Your task to perform on an android device: find snoozed emails in the gmail app Image 0: 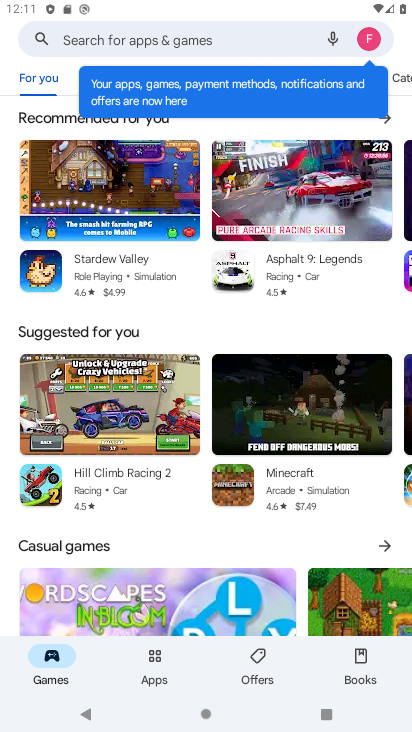
Step 0: press home button
Your task to perform on an android device: find snoozed emails in the gmail app Image 1: 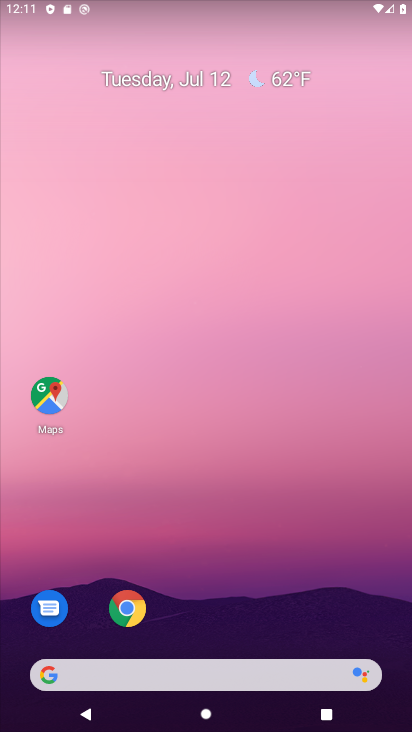
Step 1: drag from (279, 615) to (267, 31)
Your task to perform on an android device: find snoozed emails in the gmail app Image 2: 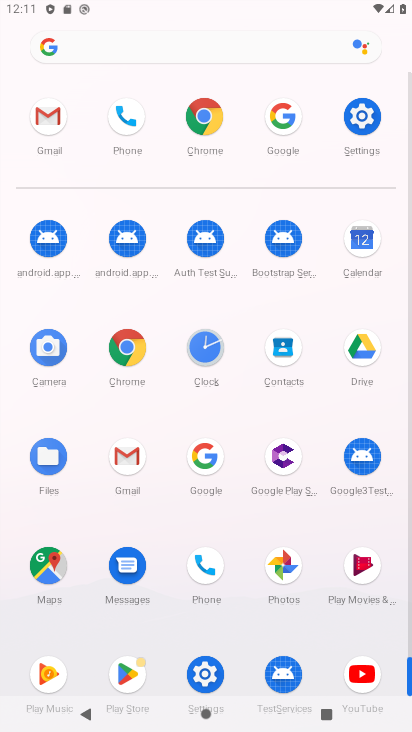
Step 2: click (32, 116)
Your task to perform on an android device: find snoozed emails in the gmail app Image 3: 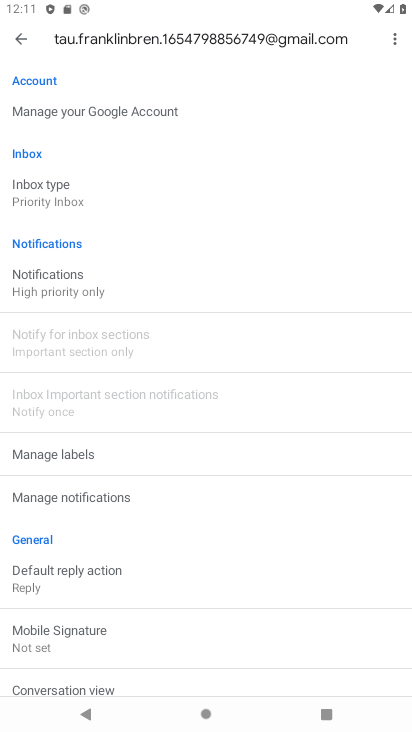
Step 3: drag from (166, 264) to (261, 613)
Your task to perform on an android device: find snoozed emails in the gmail app Image 4: 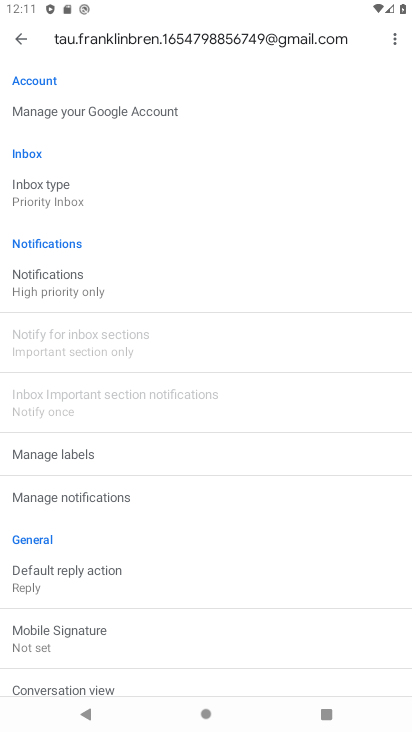
Step 4: click (24, 38)
Your task to perform on an android device: find snoozed emails in the gmail app Image 5: 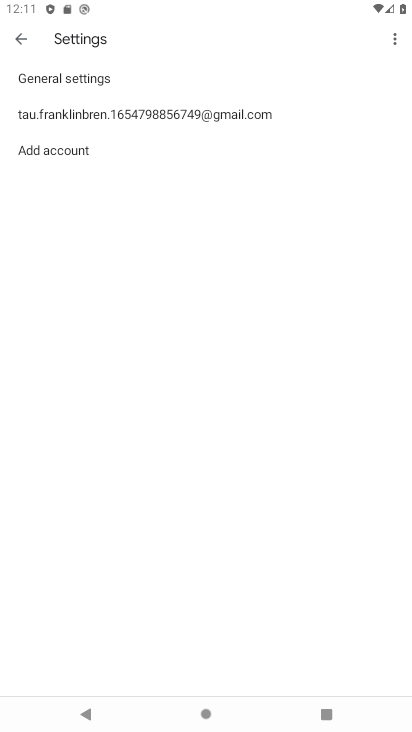
Step 5: click (24, 37)
Your task to perform on an android device: find snoozed emails in the gmail app Image 6: 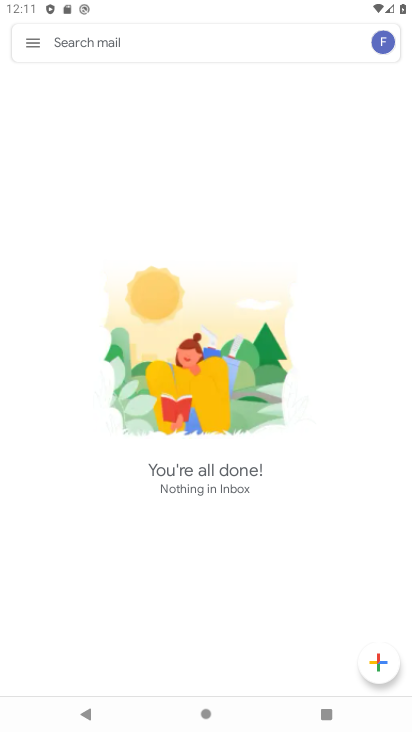
Step 6: click (48, 45)
Your task to perform on an android device: find snoozed emails in the gmail app Image 7: 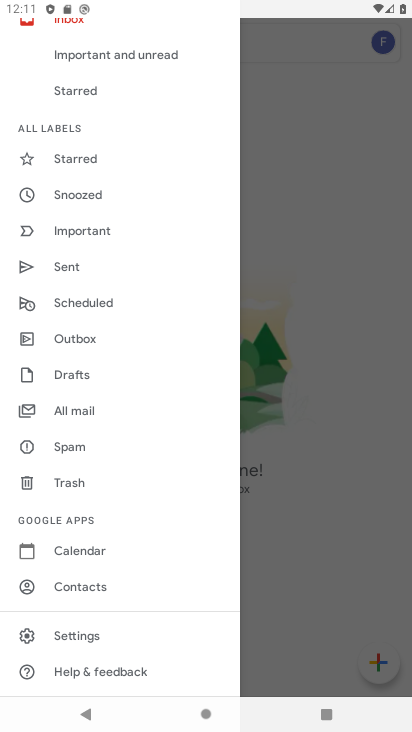
Step 7: click (82, 196)
Your task to perform on an android device: find snoozed emails in the gmail app Image 8: 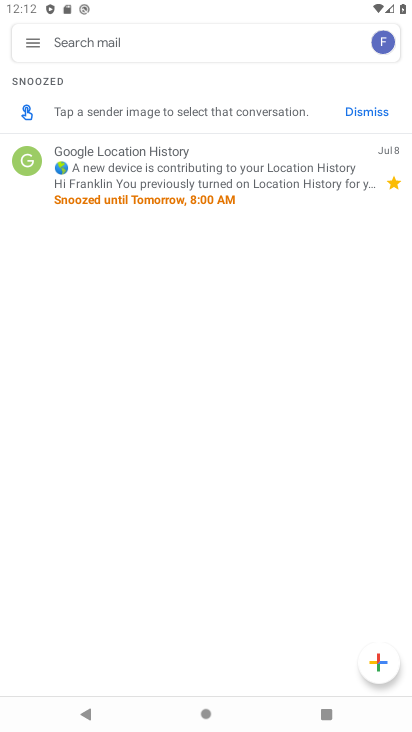
Step 8: task complete